Your task to perform on an android device: Go to calendar. Show me events next week Image 0: 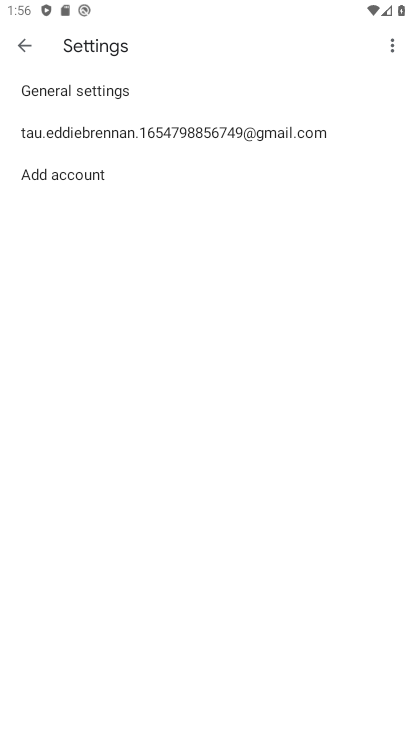
Step 0: press home button
Your task to perform on an android device: Go to calendar. Show me events next week Image 1: 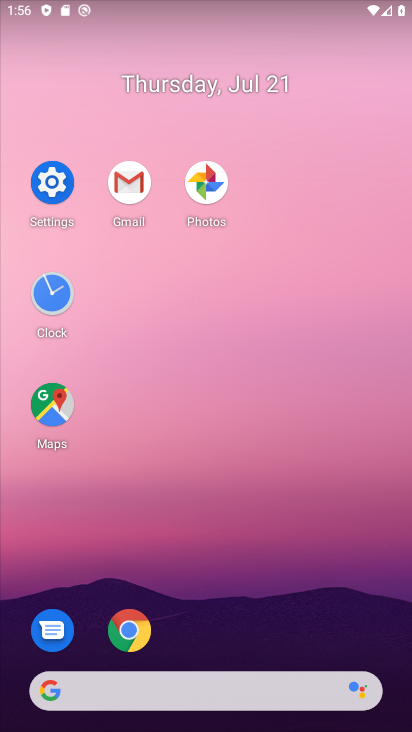
Step 1: drag from (260, 652) to (279, 282)
Your task to perform on an android device: Go to calendar. Show me events next week Image 2: 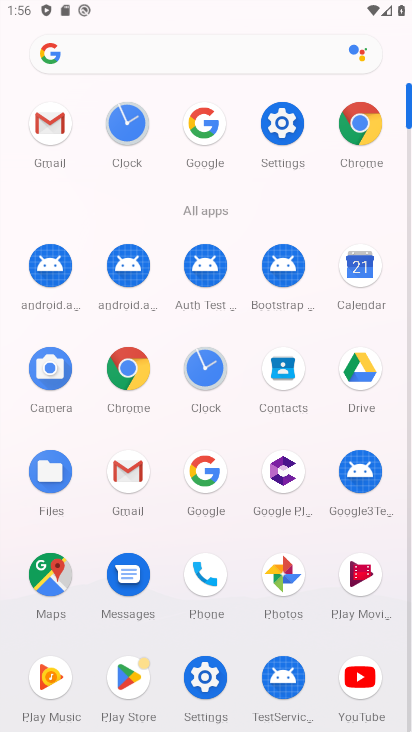
Step 2: click (353, 271)
Your task to perform on an android device: Go to calendar. Show me events next week Image 3: 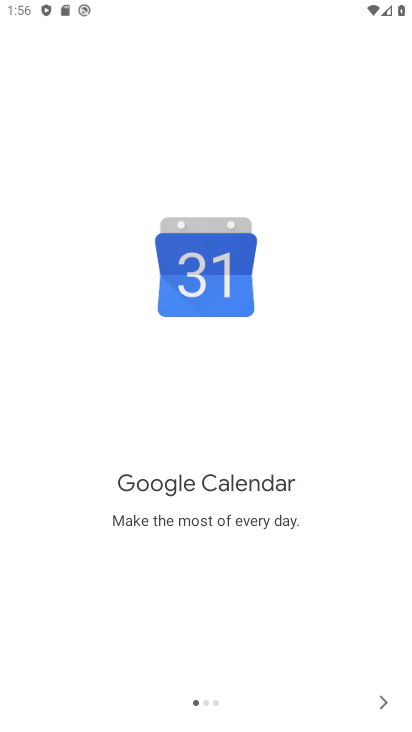
Step 3: click (383, 710)
Your task to perform on an android device: Go to calendar. Show me events next week Image 4: 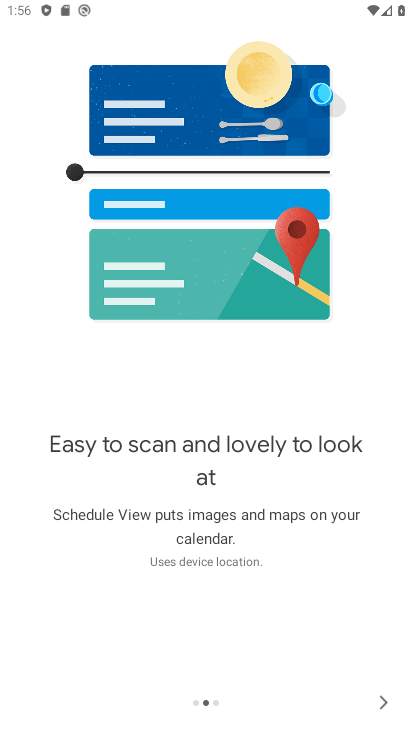
Step 4: click (391, 710)
Your task to perform on an android device: Go to calendar. Show me events next week Image 5: 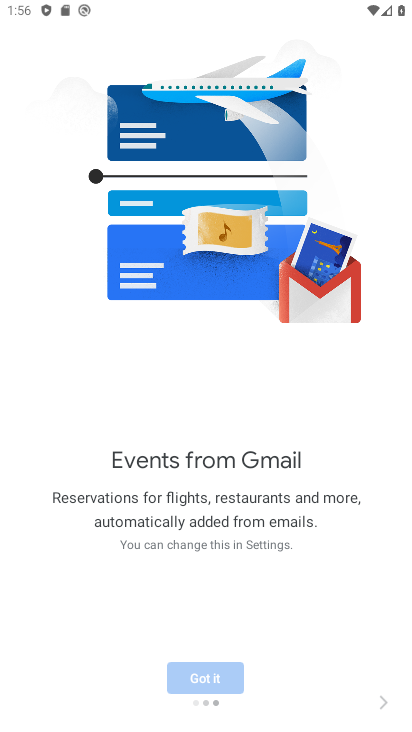
Step 5: click (391, 710)
Your task to perform on an android device: Go to calendar. Show me events next week Image 6: 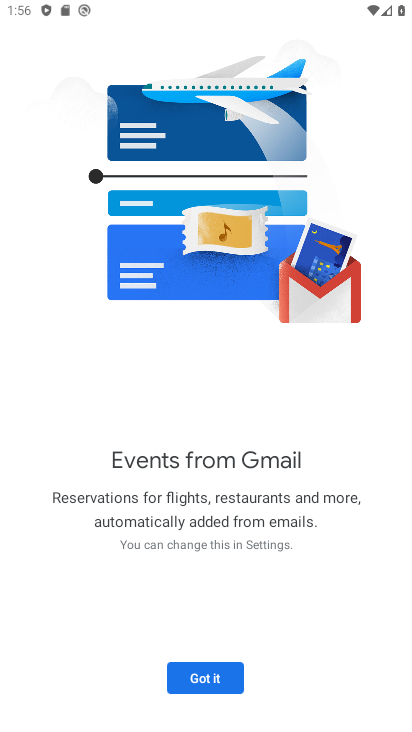
Step 6: click (222, 679)
Your task to perform on an android device: Go to calendar. Show me events next week Image 7: 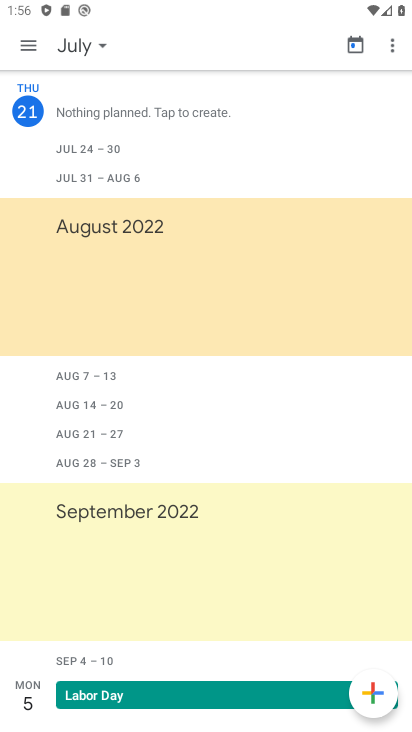
Step 7: click (37, 51)
Your task to perform on an android device: Go to calendar. Show me events next week Image 8: 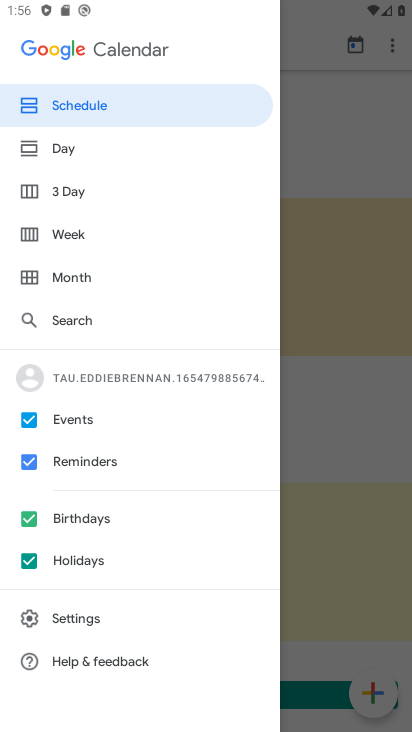
Step 8: click (89, 240)
Your task to perform on an android device: Go to calendar. Show me events next week Image 9: 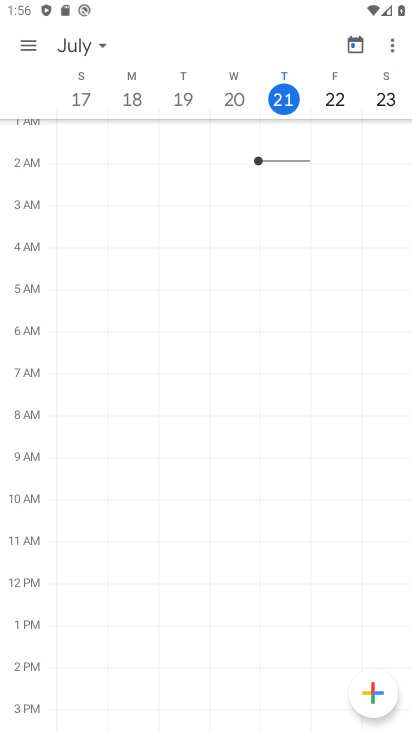
Step 9: task complete